Your task to perform on an android device: snooze an email in the gmail app Image 0: 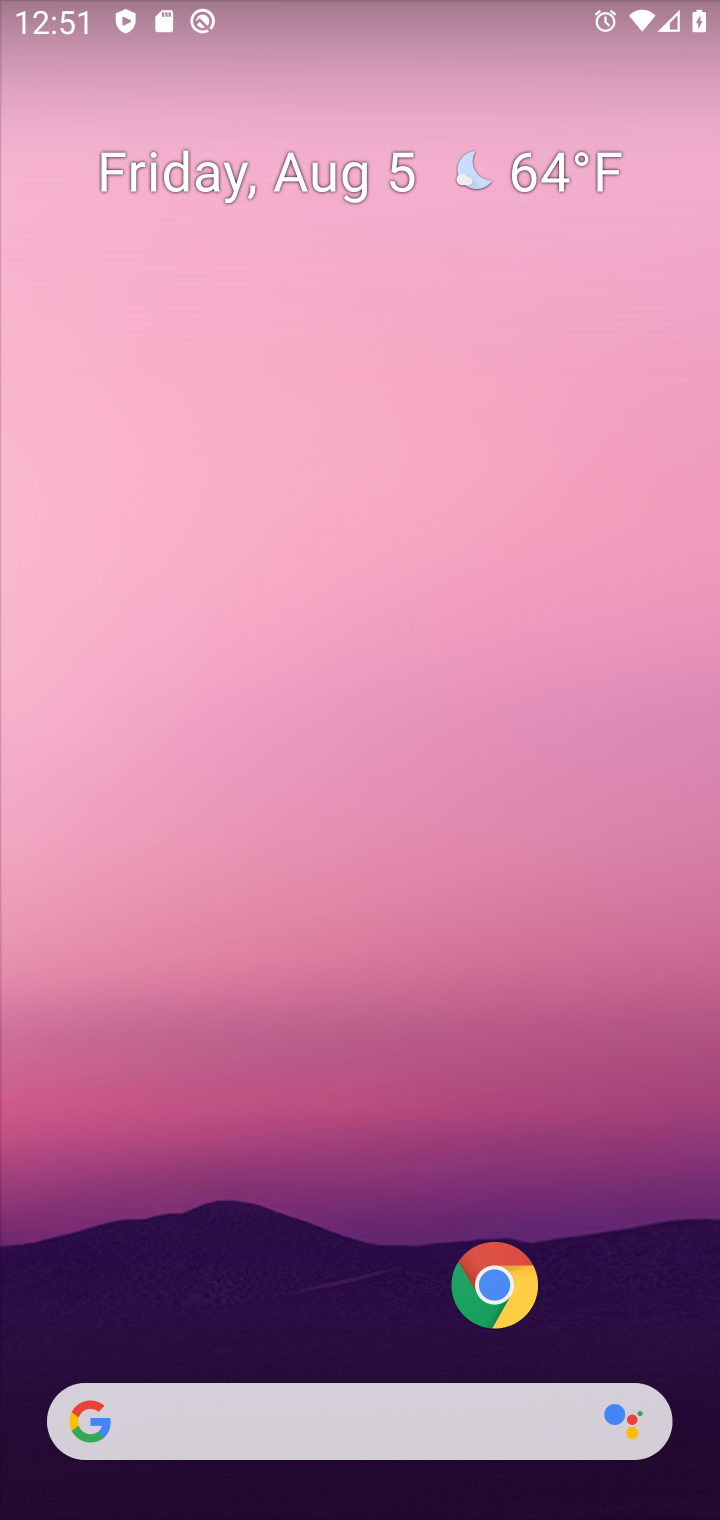
Step 0: press home button
Your task to perform on an android device: snooze an email in the gmail app Image 1: 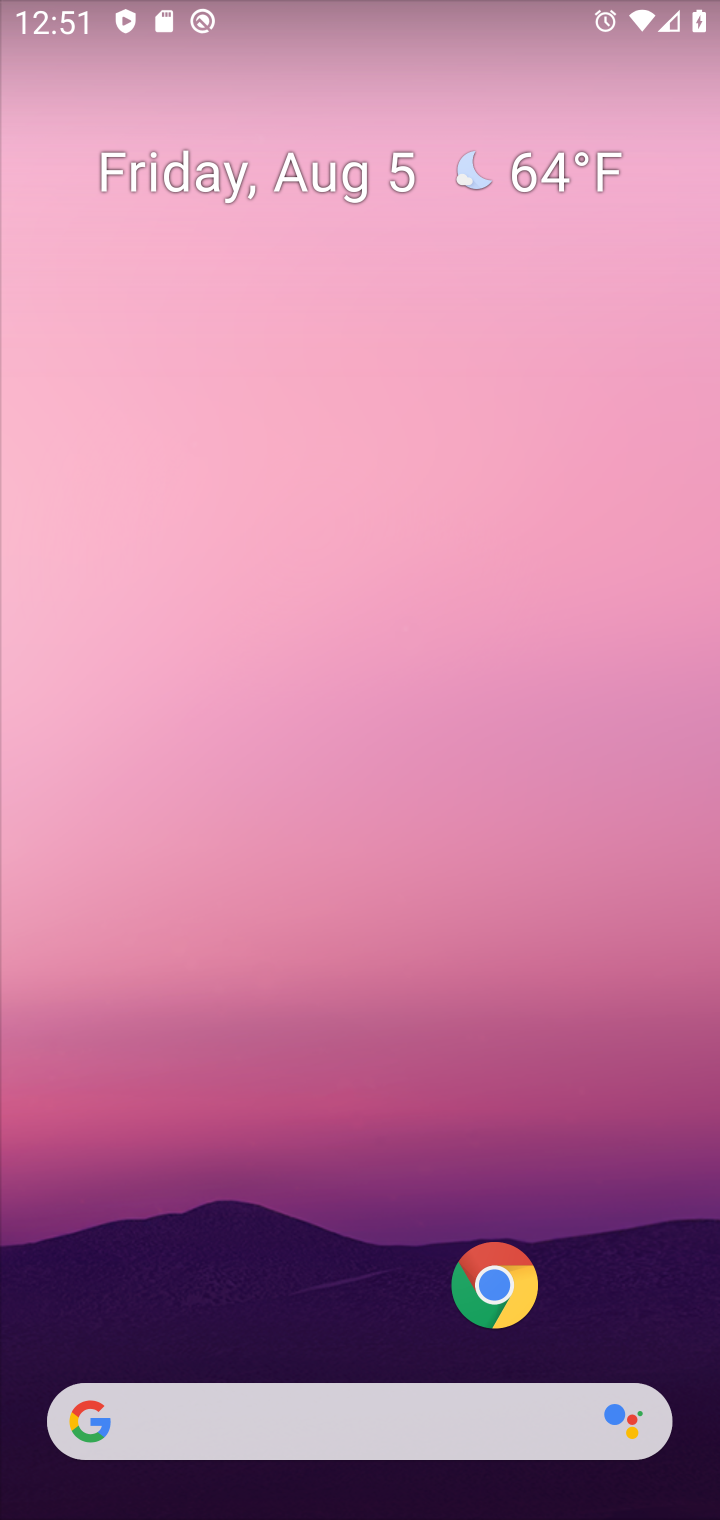
Step 1: drag from (398, 1379) to (340, 135)
Your task to perform on an android device: snooze an email in the gmail app Image 2: 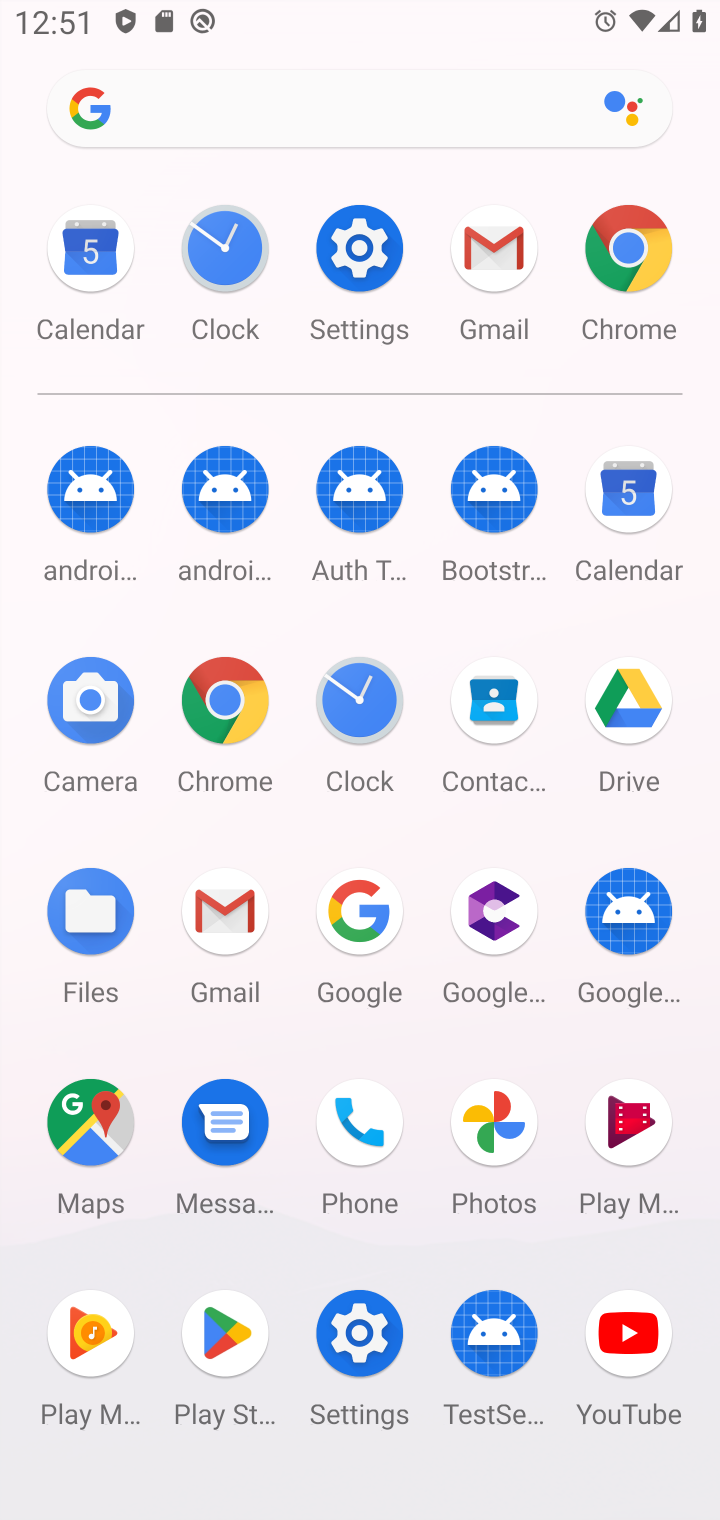
Step 2: click (496, 300)
Your task to perform on an android device: snooze an email in the gmail app Image 3: 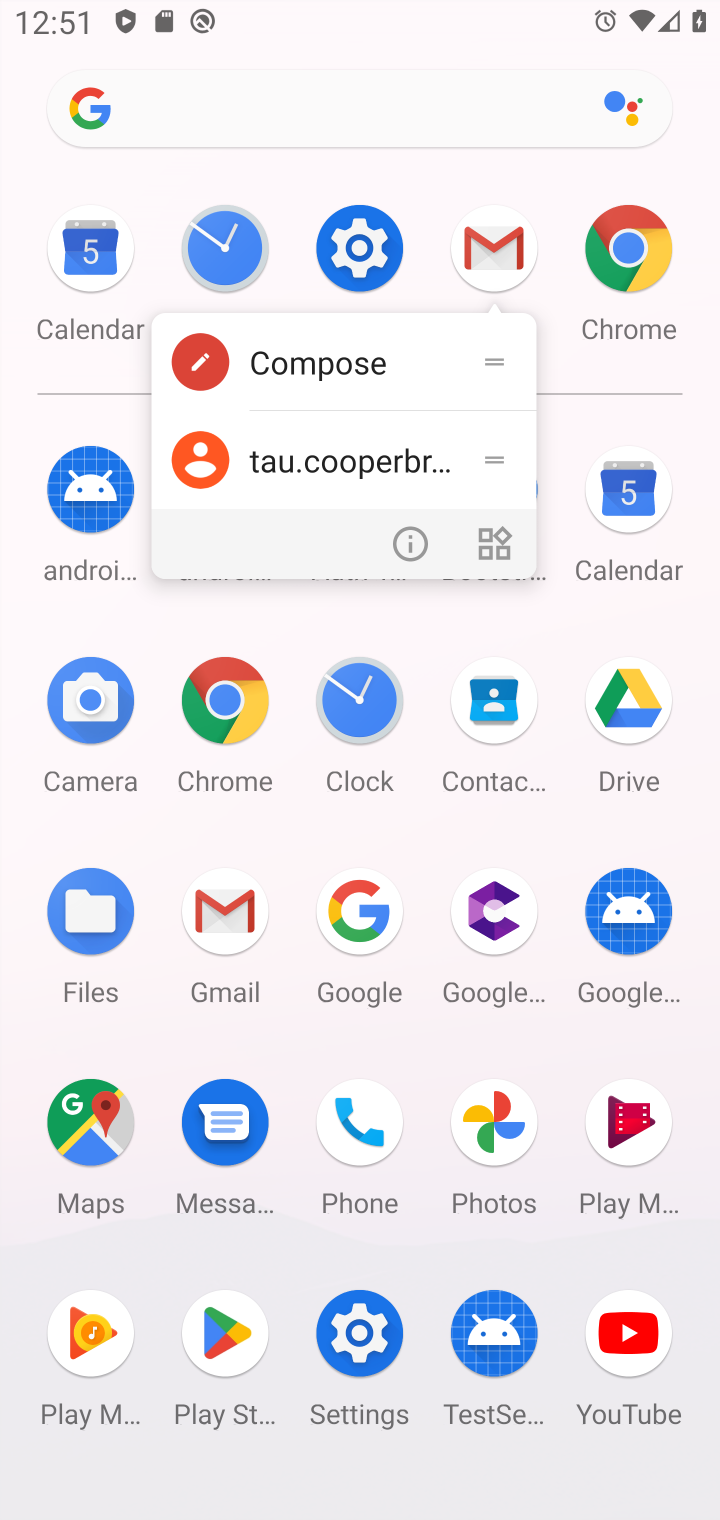
Step 3: click (496, 300)
Your task to perform on an android device: snooze an email in the gmail app Image 4: 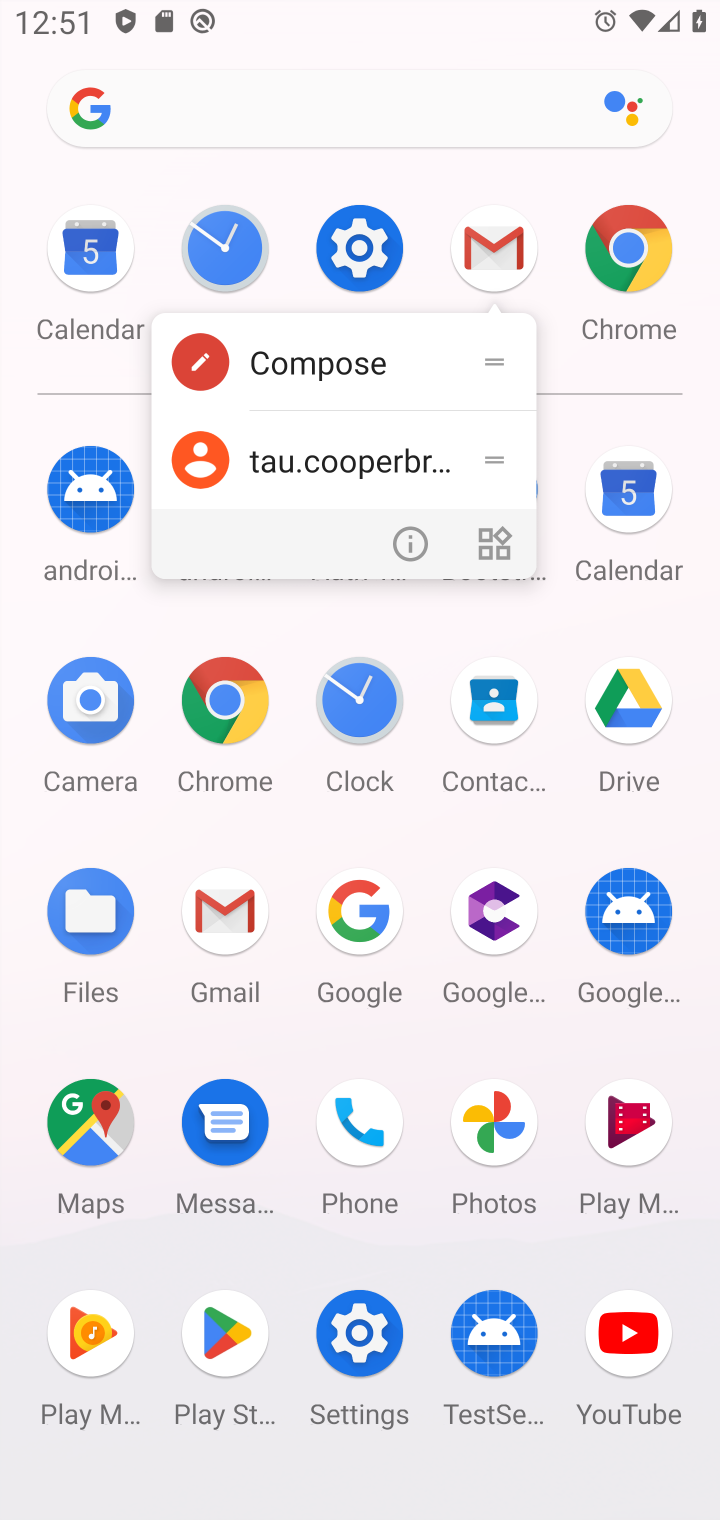
Step 4: click (496, 300)
Your task to perform on an android device: snooze an email in the gmail app Image 5: 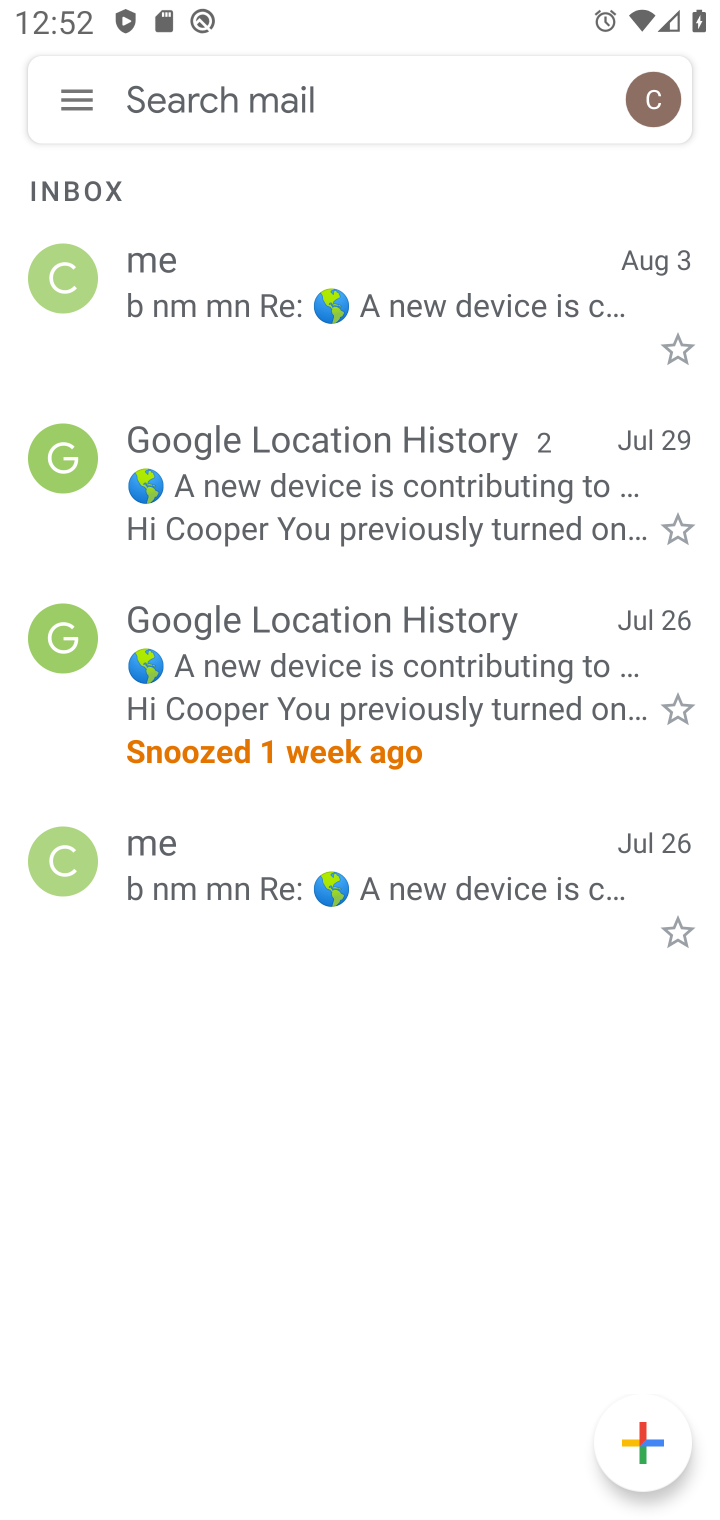
Step 5: click (90, 104)
Your task to perform on an android device: snooze an email in the gmail app Image 6: 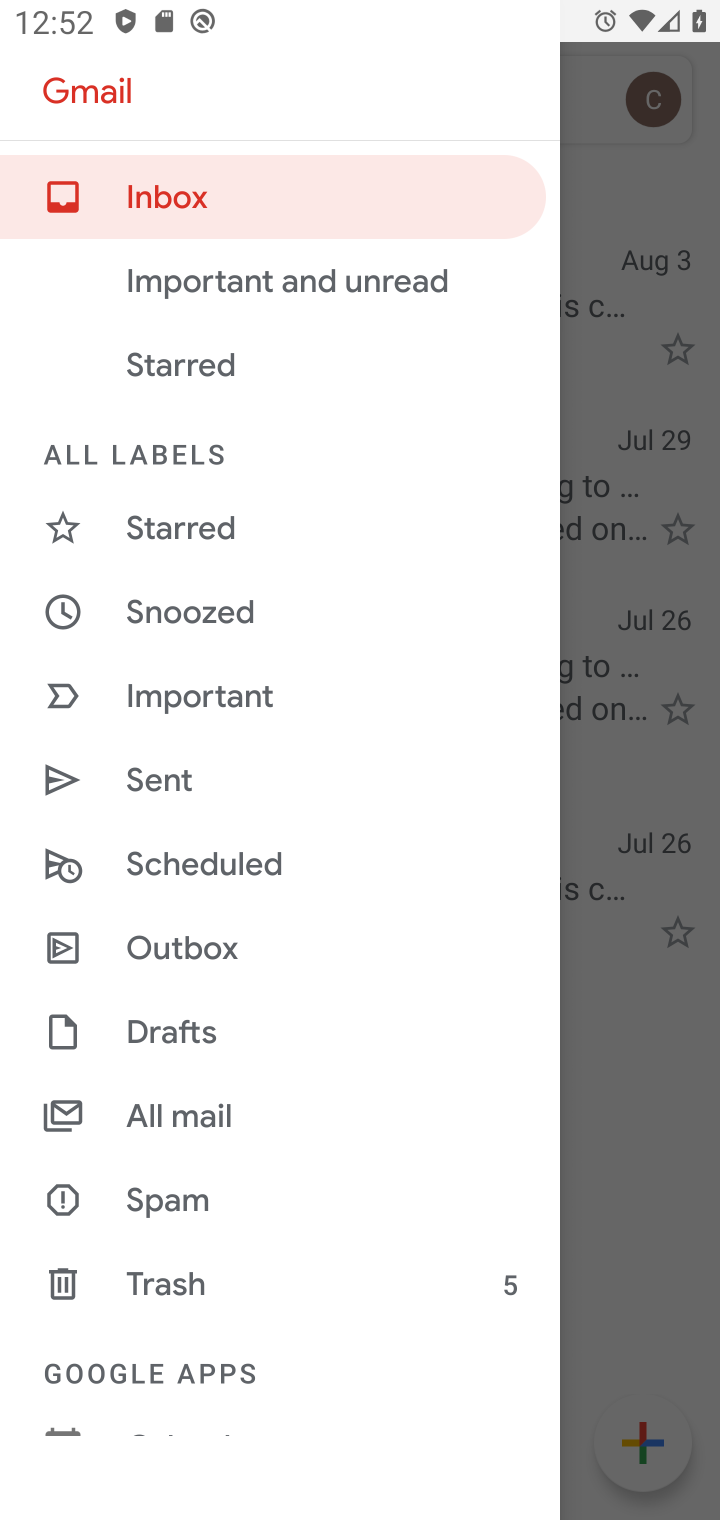
Step 6: drag from (194, 1184) to (226, 918)
Your task to perform on an android device: snooze an email in the gmail app Image 7: 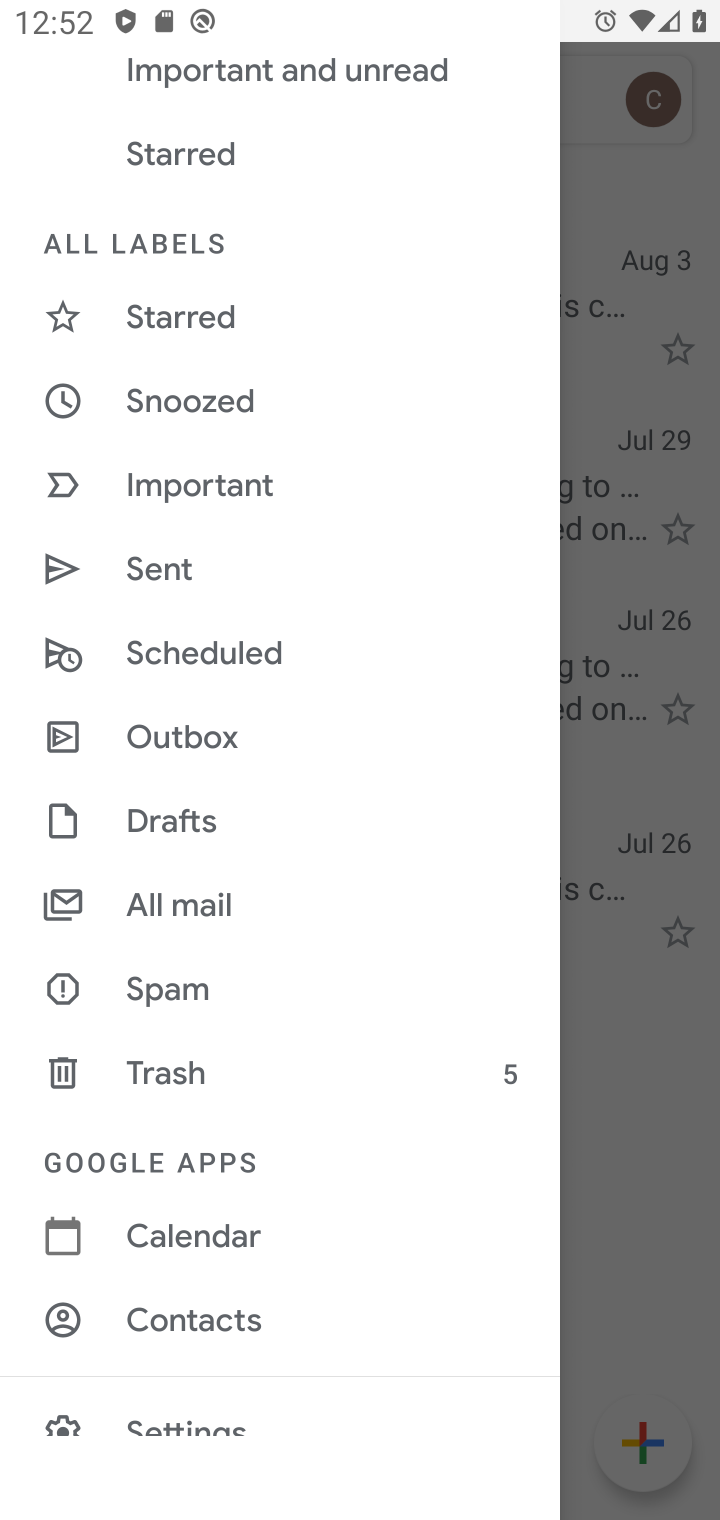
Step 7: click (253, 382)
Your task to perform on an android device: snooze an email in the gmail app Image 8: 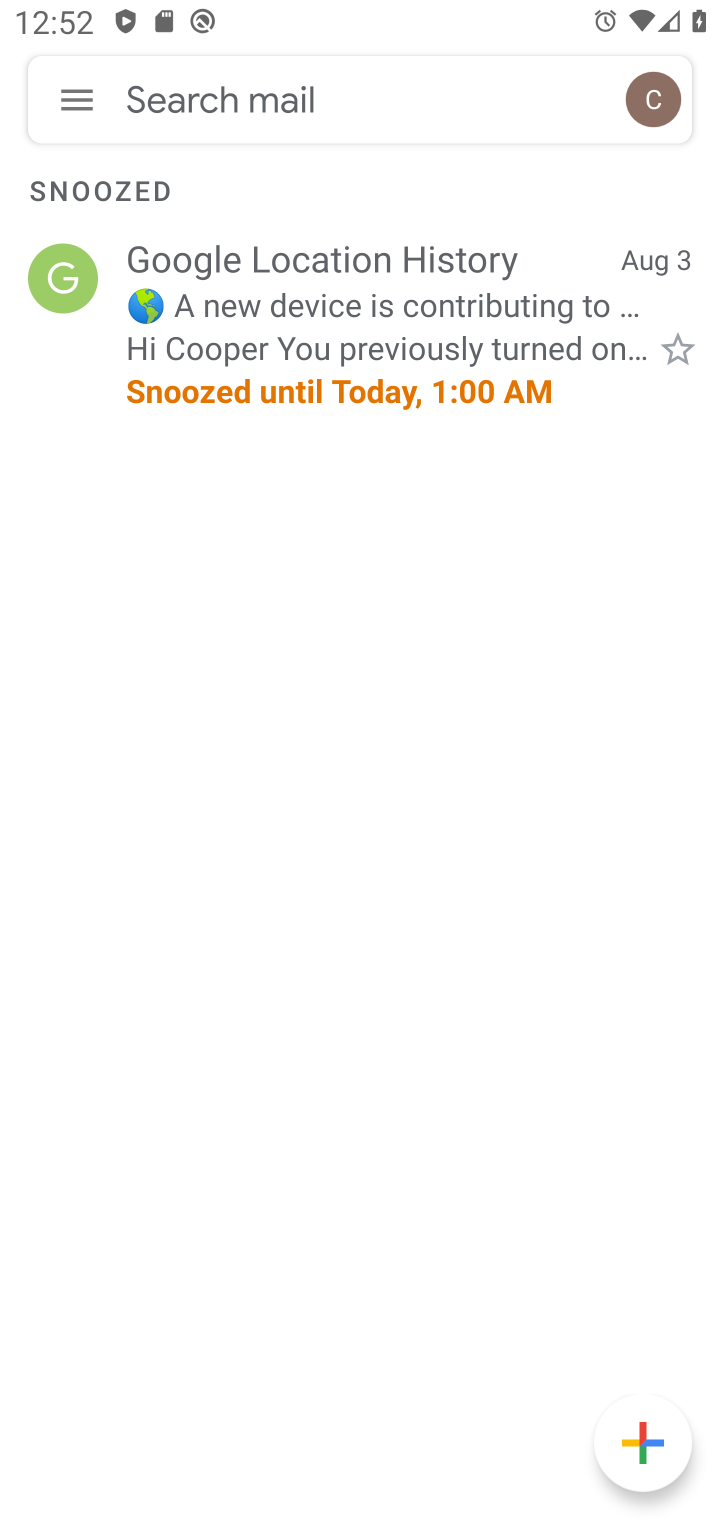
Step 8: click (523, 358)
Your task to perform on an android device: snooze an email in the gmail app Image 9: 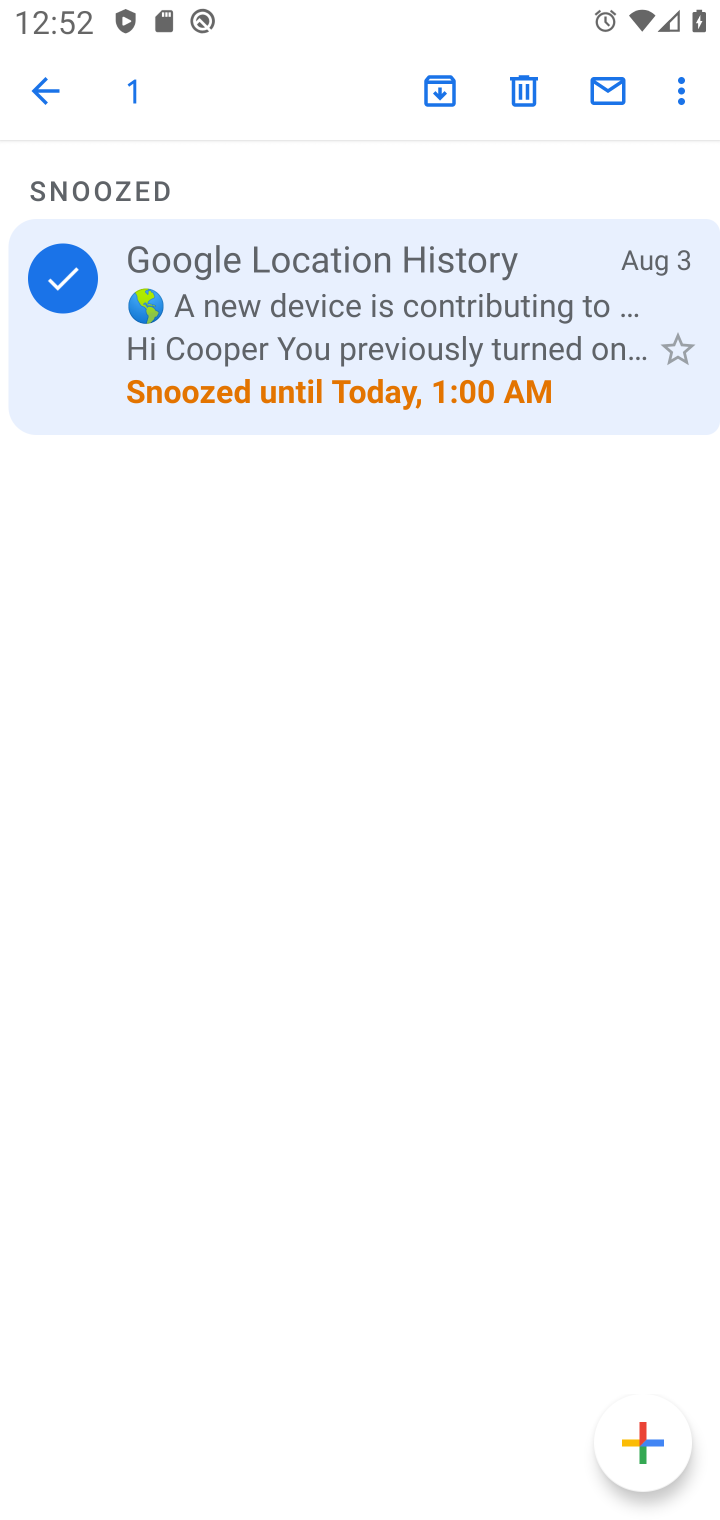
Step 9: click (641, 100)
Your task to perform on an android device: snooze an email in the gmail app Image 10: 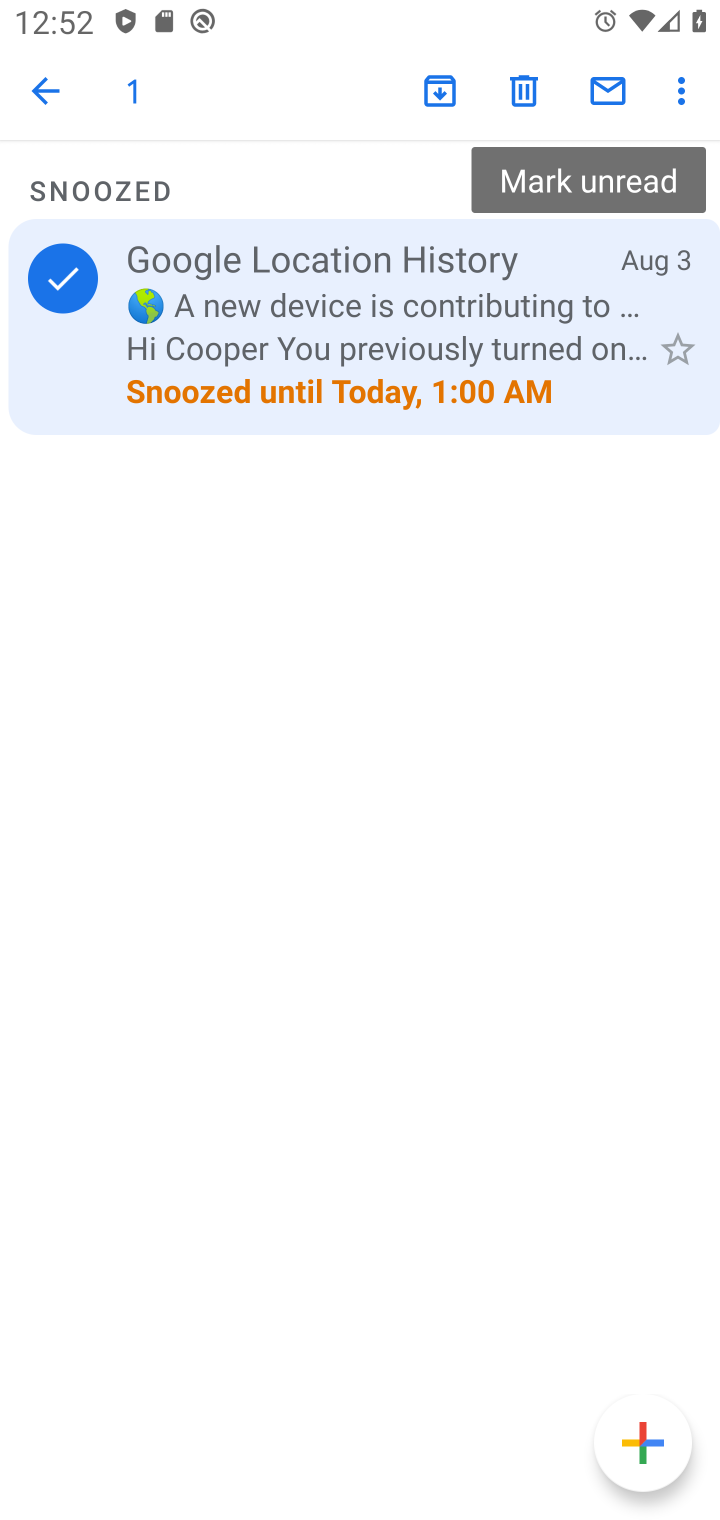
Step 10: click (688, 93)
Your task to perform on an android device: snooze an email in the gmail app Image 11: 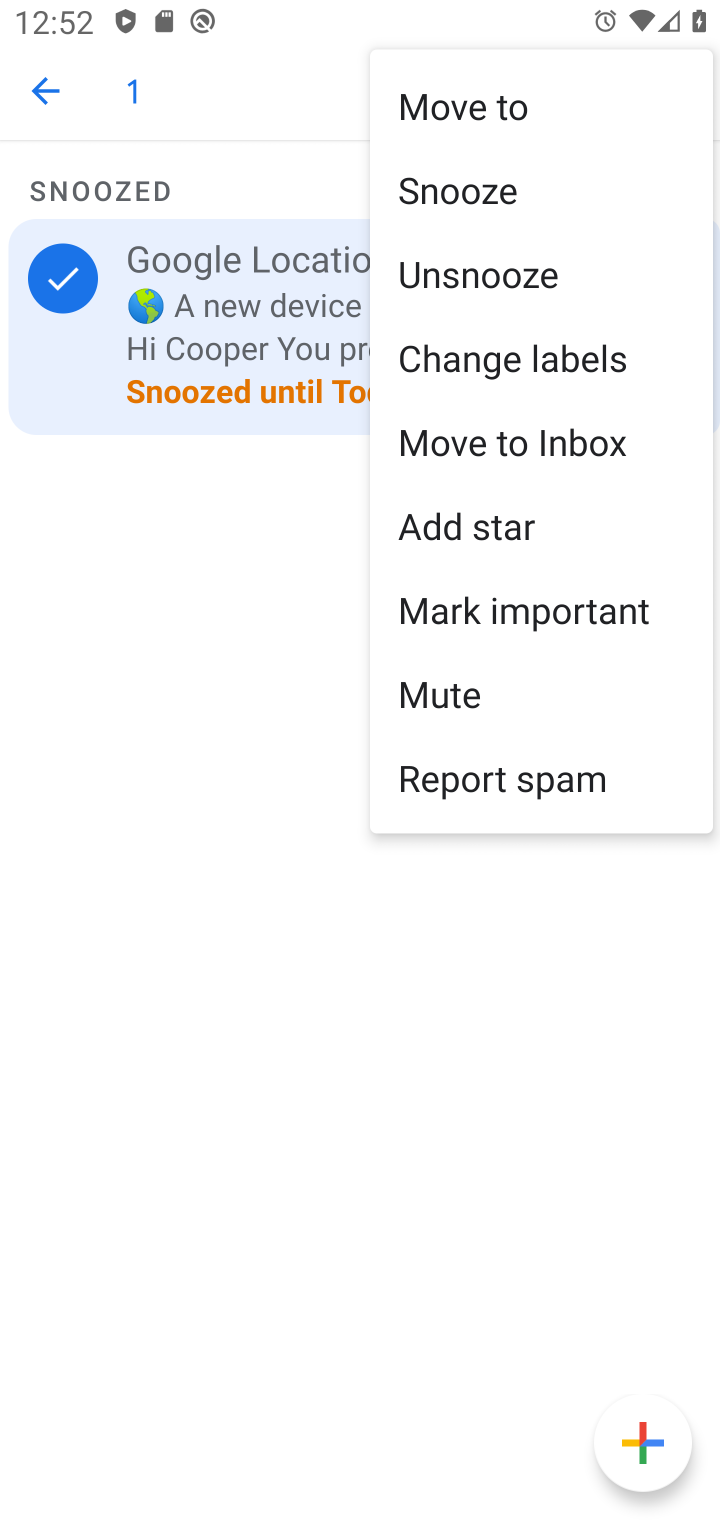
Step 11: click (420, 201)
Your task to perform on an android device: snooze an email in the gmail app Image 12: 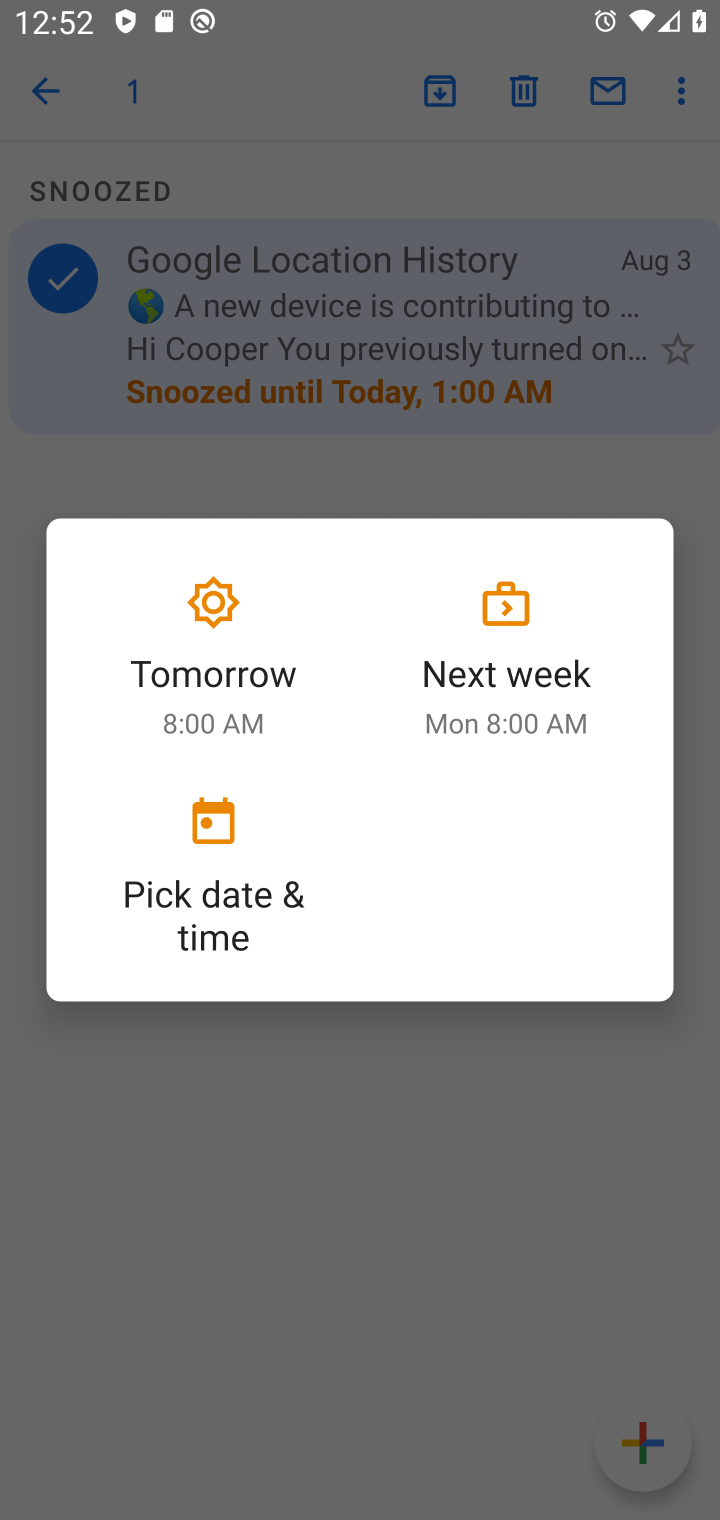
Step 12: click (201, 647)
Your task to perform on an android device: snooze an email in the gmail app Image 13: 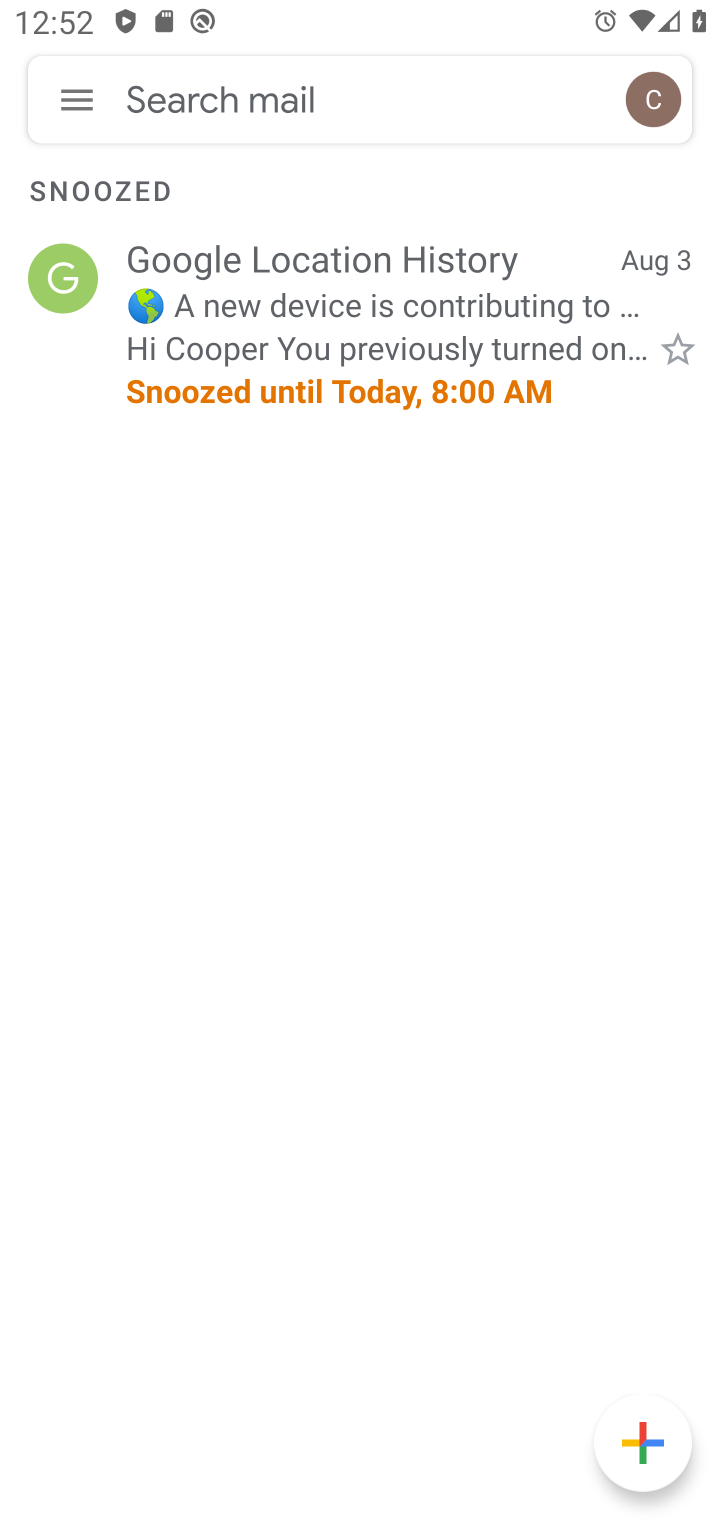
Step 13: task complete